Your task to perform on an android device: Do I have any events today? Image 0: 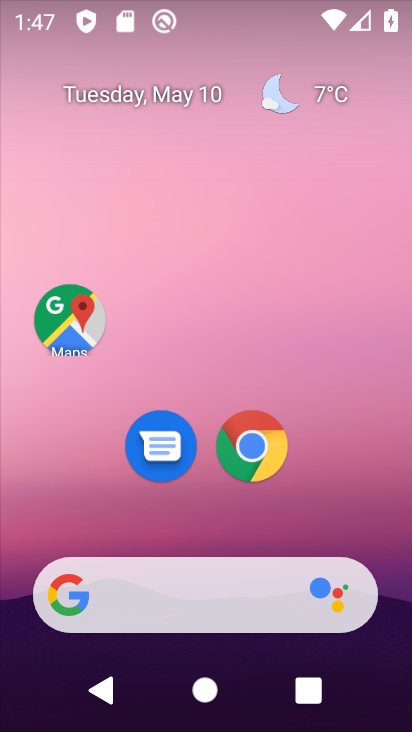
Step 0: drag from (337, 462) to (314, 163)
Your task to perform on an android device: Do I have any events today? Image 1: 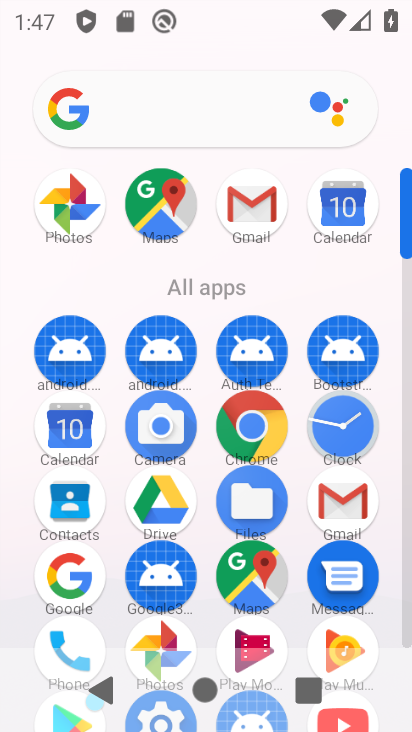
Step 1: click (76, 423)
Your task to perform on an android device: Do I have any events today? Image 2: 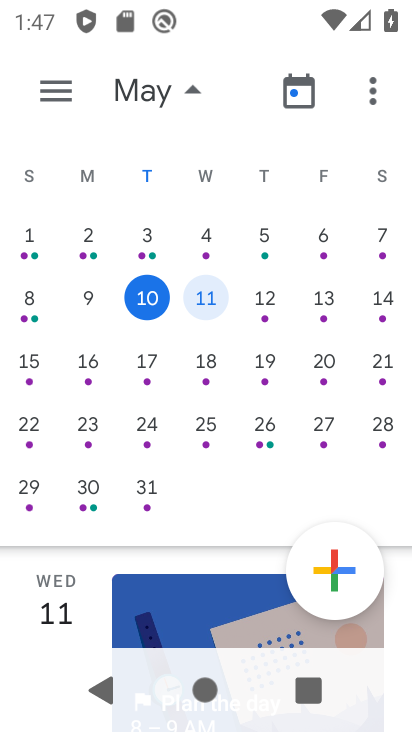
Step 2: click (162, 302)
Your task to perform on an android device: Do I have any events today? Image 3: 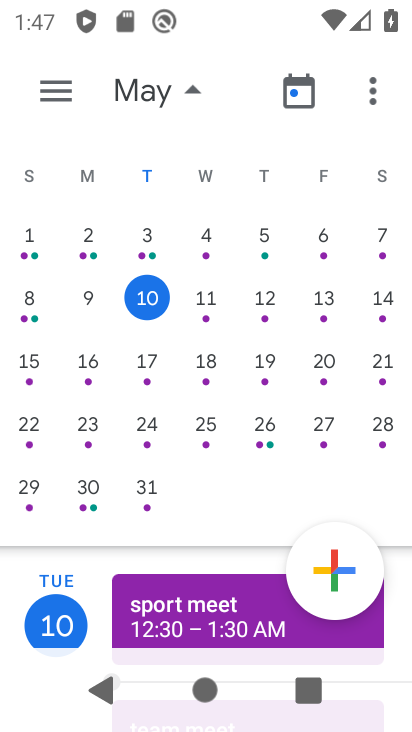
Step 3: task complete